Your task to perform on an android device: Open ESPN.com Image 0: 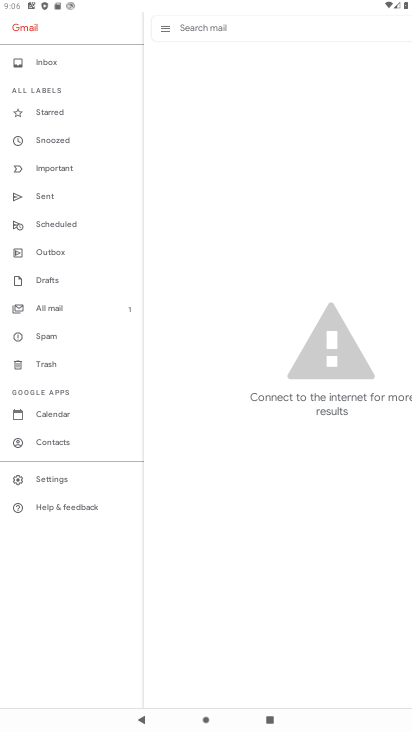
Step 0: press home button
Your task to perform on an android device: Open ESPN.com Image 1: 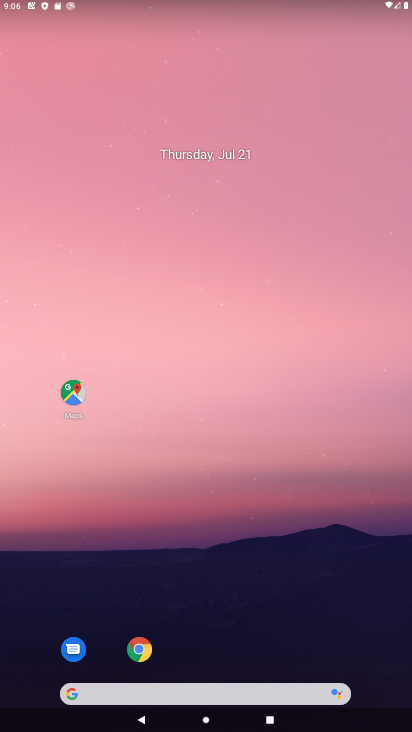
Step 1: click (134, 651)
Your task to perform on an android device: Open ESPN.com Image 2: 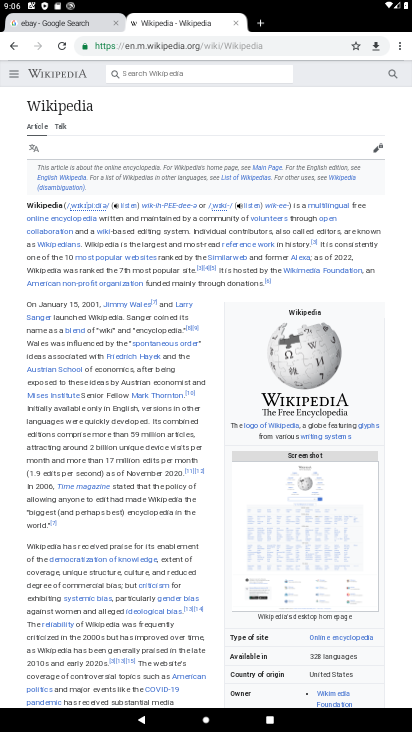
Step 2: click (195, 52)
Your task to perform on an android device: Open ESPN.com Image 3: 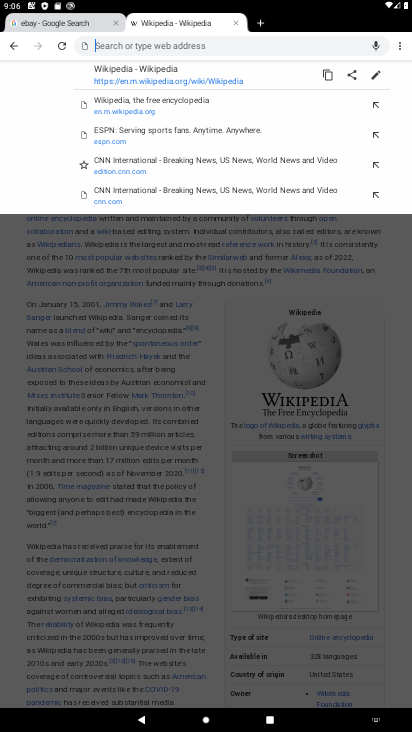
Step 3: type "ESPN.com"
Your task to perform on an android device: Open ESPN.com Image 4: 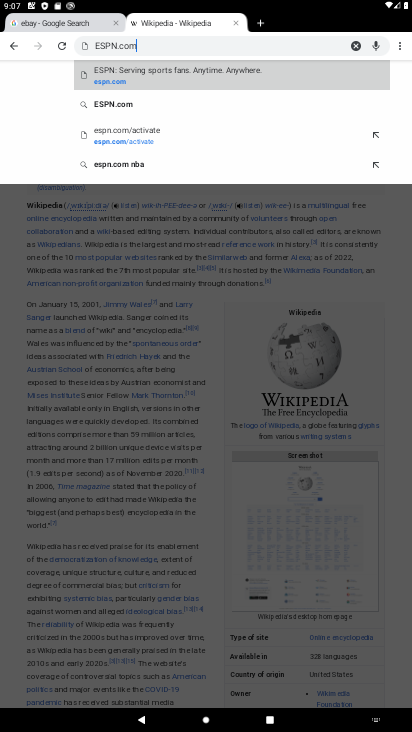
Step 4: click (150, 78)
Your task to perform on an android device: Open ESPN.com Image 5: 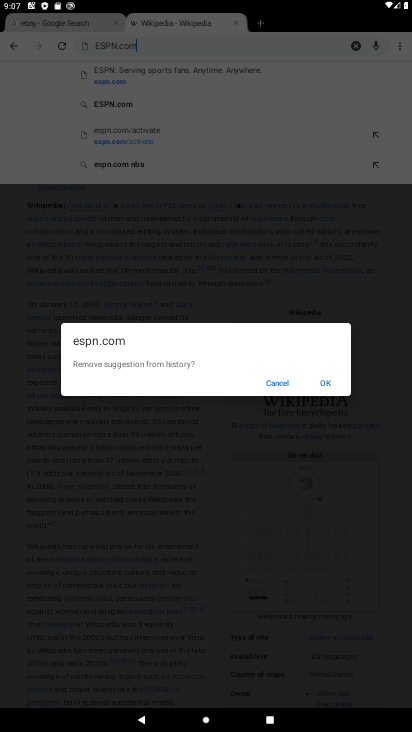
Step 5: click (278, 382)
Your task to perform on an android device: Open ESPN.com Image 6: 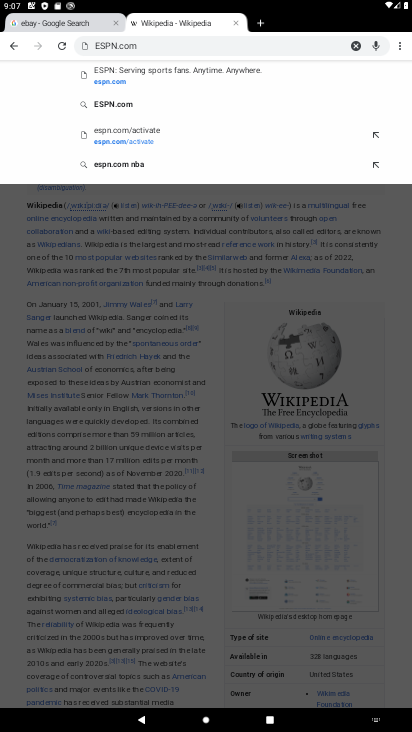
Step 6: click (91, 65)
Your task to perform on an android device: Open ESPN.com Image 7: 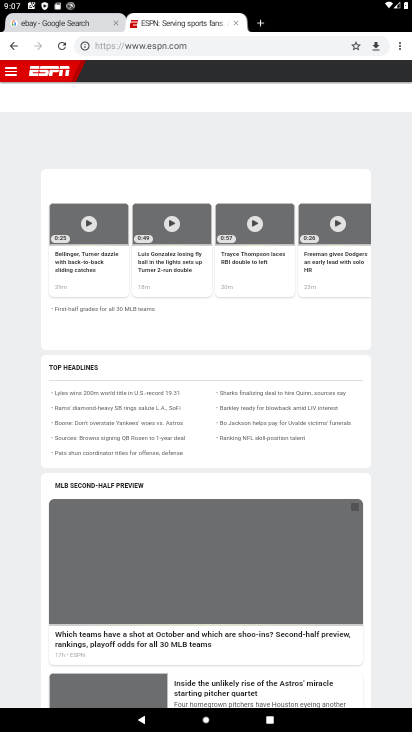
Step 7: task complete